Your task to perform on an android device: toggle priority inbox in the gmail app Image 0: 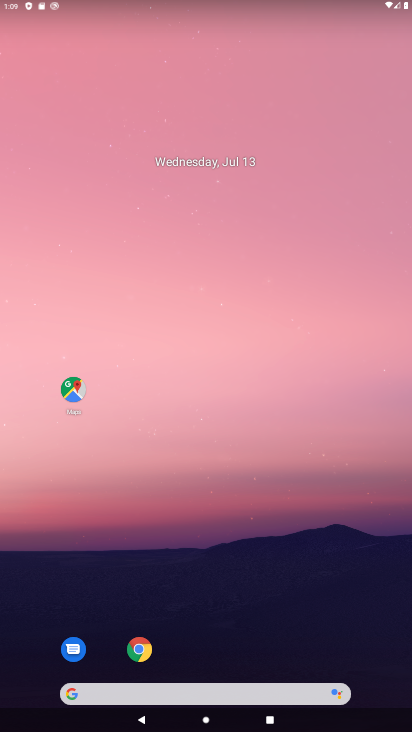
Step 0: drag from (198, 686) to (340, 74)
Your task to perform on an android device: toggle priority inbox in the gmail app Image 1: 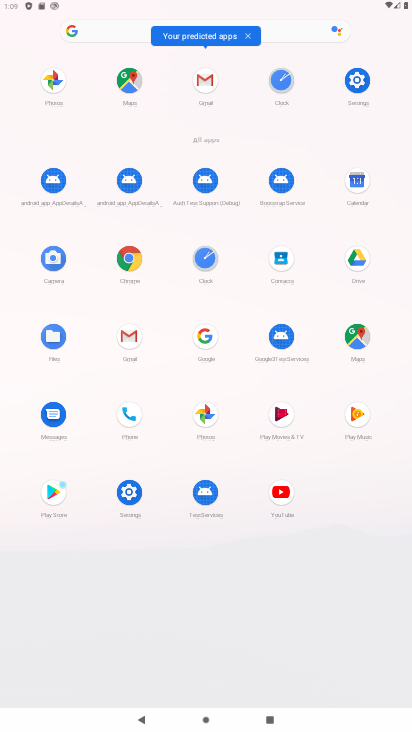
Step 1: click (131, 334)
Your task to perform on an android device: toggle priority inbox in the gmail app Image 2: 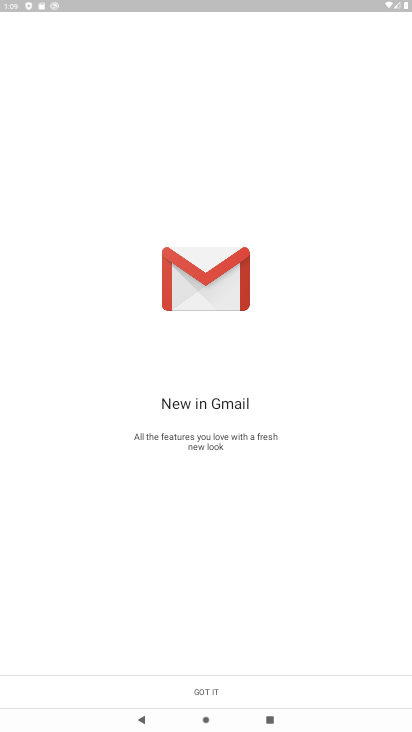
Step 2: click (215, 694)
Your task to perform on an android device: toggle priority inbox in the gmail app Image 3: 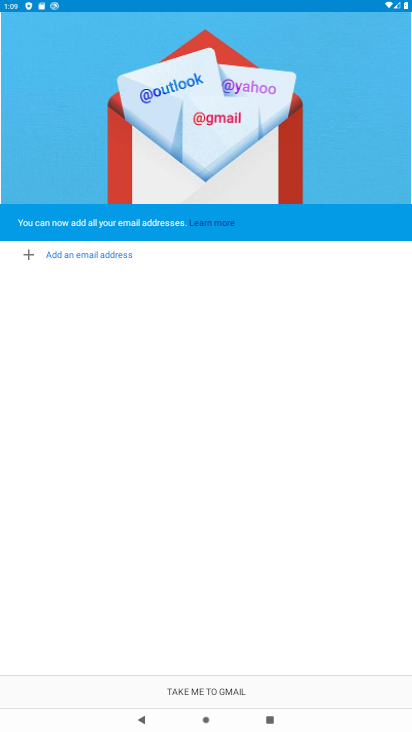
Step 3: click (215, 694)
Your task to perform on an android device: toggle priority inbox in the gmail app Image 4: 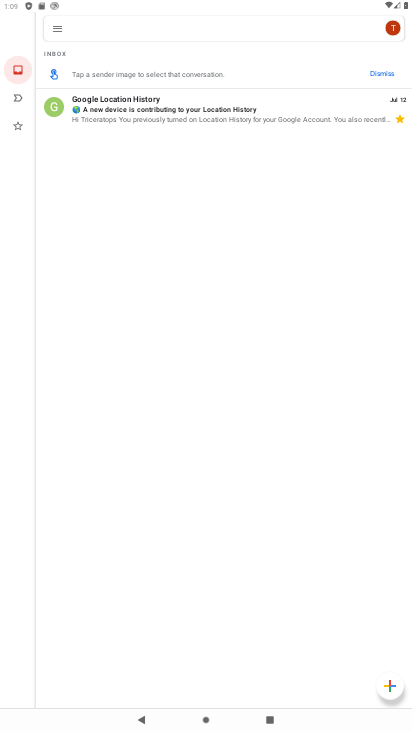
Step 4: click (56, 30)
Your task to perform on an android device: toggle priority inbox in the gmail app Image 5: 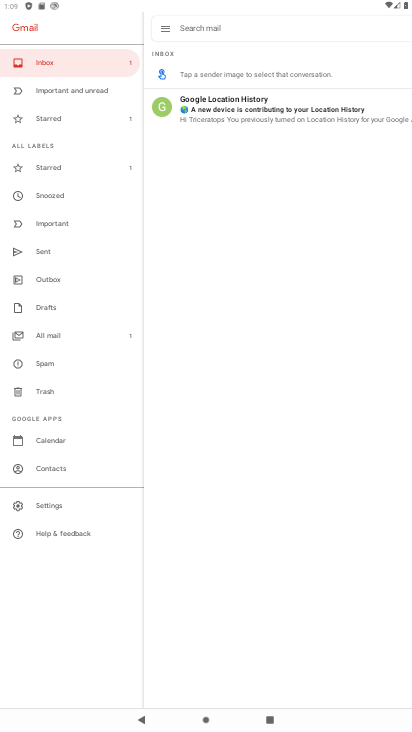
Step 5: click (67, 506)
Your task to perform on an android device: toggle priority inbox in the gmail app Image 6: 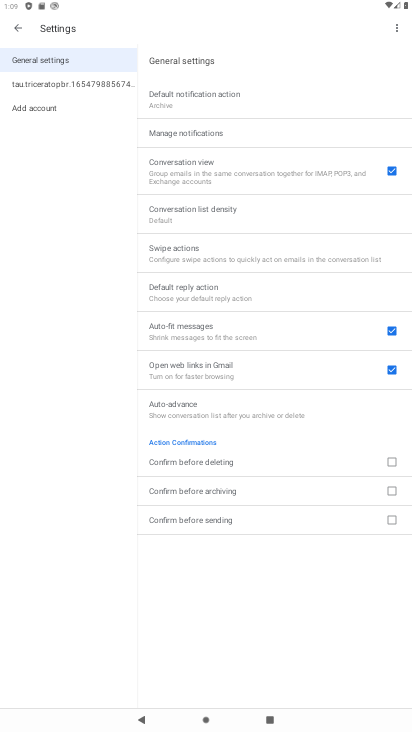
Step 6: click (84, 75)
Your task to perform on an android device: toggle priority inbox in the gmail app Image 7: 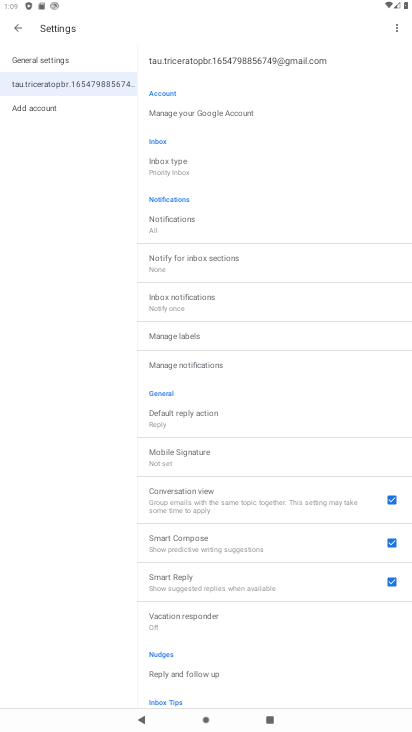
Step 7: click (223, 168)
Your task to perform on an android device: toggle priority inbox in the gmail app Image 8: 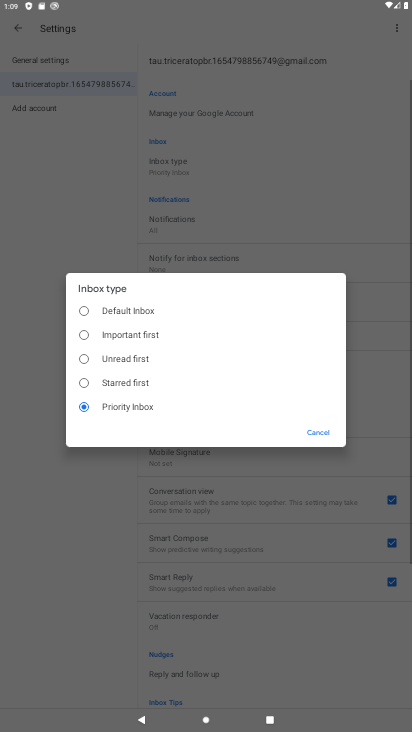
Step 8: click (266, 305)
Your task to perform on an android device: toggle priority inbox in the gmail app Image 9: 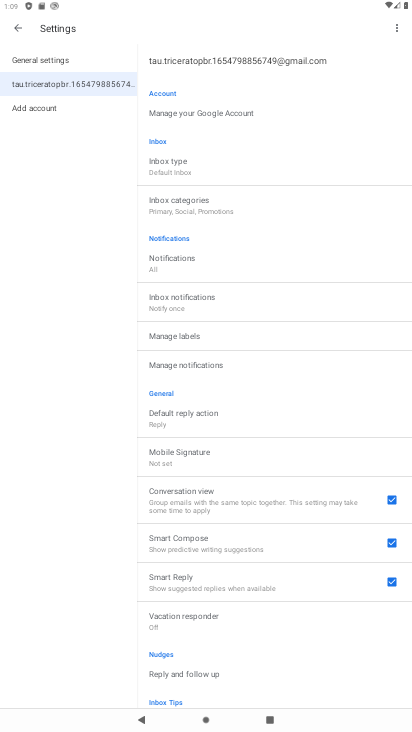
Step 9: task complete